Your task to perform on an android device: turn on showing notifications on the lock screen Image 0: 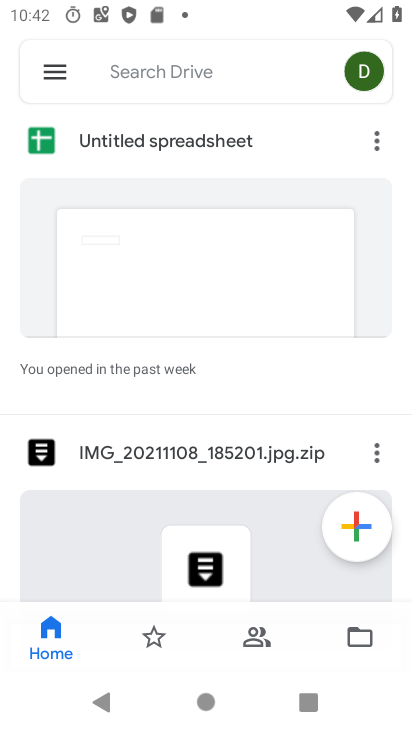
Step 0: press home button
Your task to perform on an android device: turn on showing notifications on the lock screen Image 1: 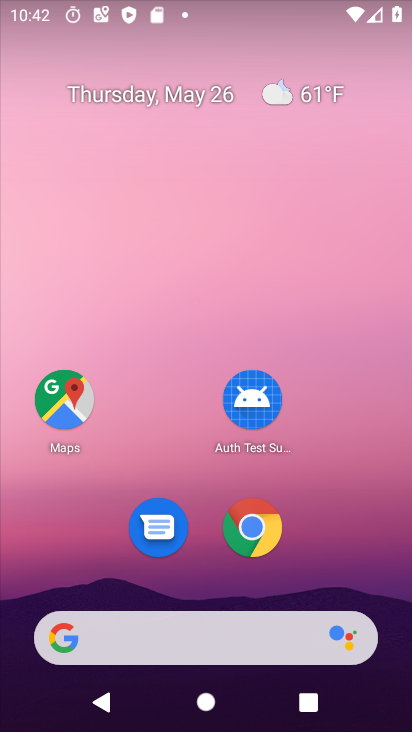
Step 1: drag from (377, 540) to (375, 0)
Your task to perform on an android device: turn on showing notifications on the lock screen Image 2: 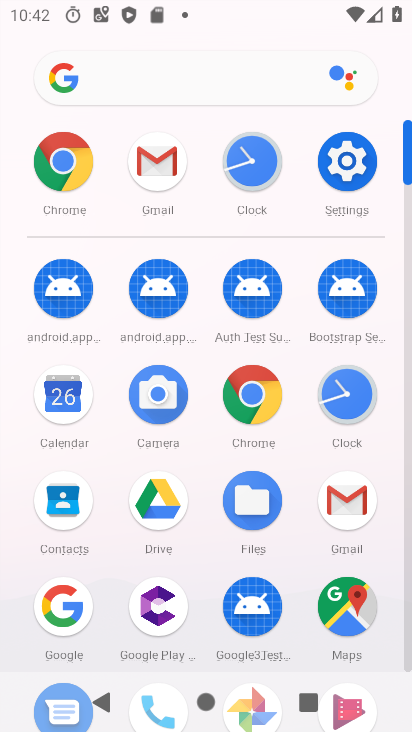
Step 2: drag from (384, 536) to (397, 175)
Your task to perform on an android device: turn on showing notifications on the lock screen Image 3: 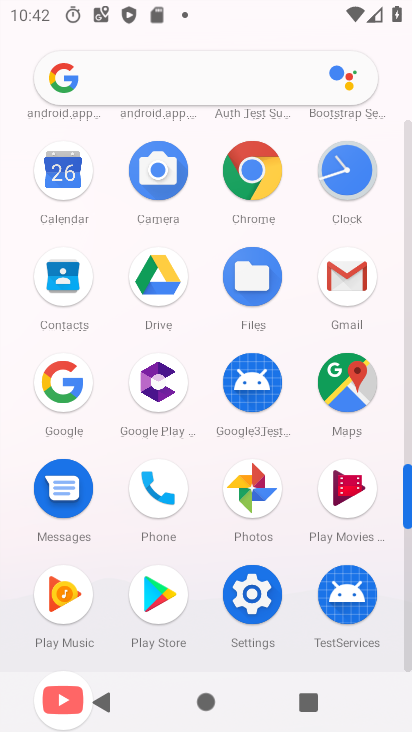
Step 3: click (246, 606)
Your task to perform on an android device: turn on showing notifications on the lock screen Image 4: 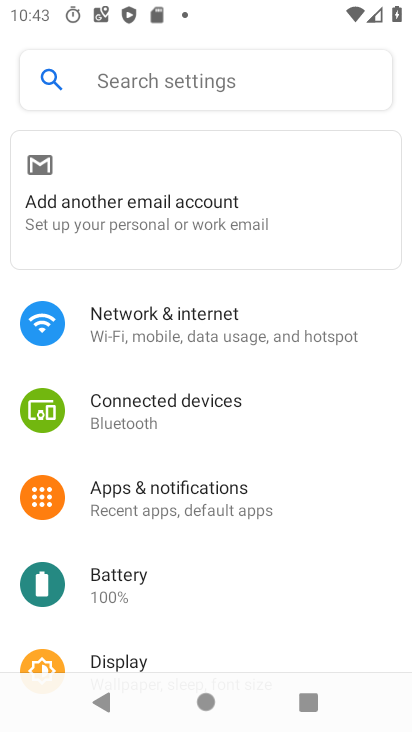
Step 4: click (156, 497)
Your task to perform on an android device: turn on showing notifications on the lock screen Image 5: 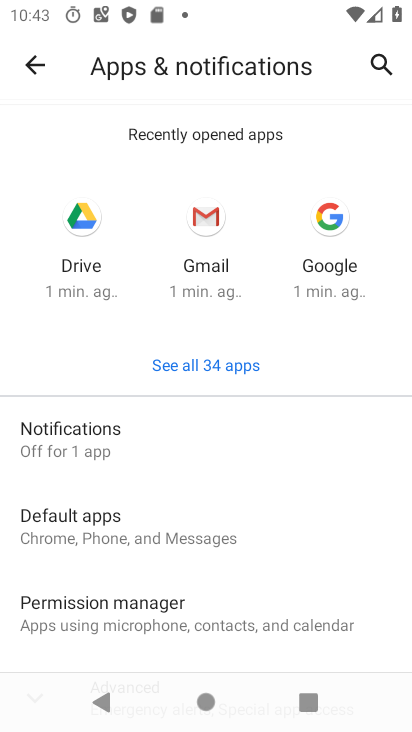
Step 5: click (72, 429)
Your task to perform on an android device: turn on showing notifications on the lock screen Image 6: 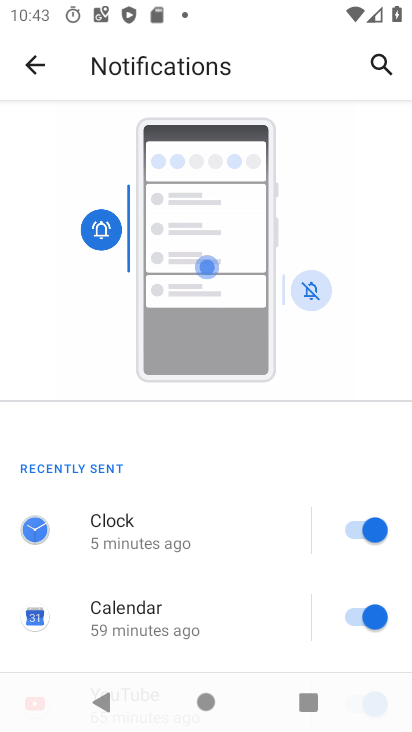
Step 6: drag from (177, 644) to (187, 176)
Your task to perform on an android device: turn on showing notifications on the lock screen Image 7: 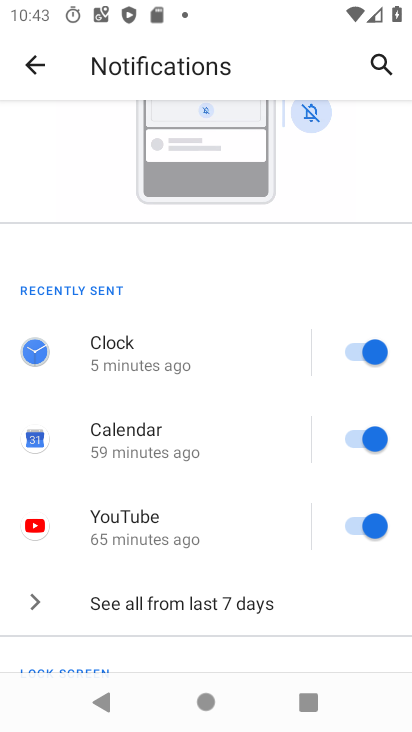
Step 7: drag from (185, 644) to (260, 83)
Your task to perform on an android device: turn on showing notifications on the lock screen Image 8: 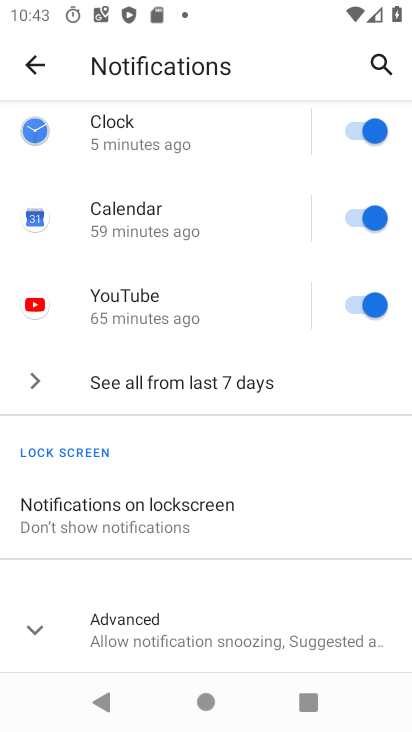
Step 8: click (125, 511)
Your task to perform on an android device: turn on showing notifications on the lock screen Image 9: 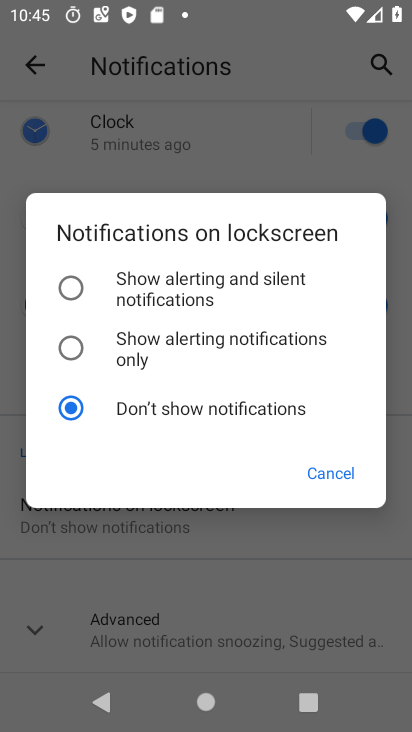
Step 9: click (146, 334)
Your task to perform on an android device: turn on showing notifications on the lock screen Image 10: 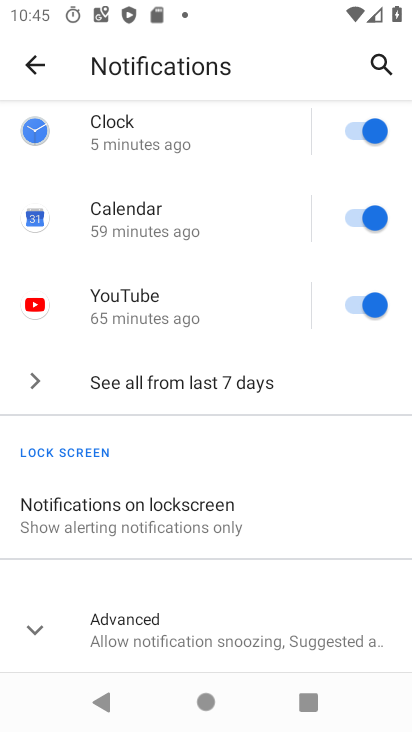
Step 10: task complete